Your task to perform on an android device: Open maps Image 0: 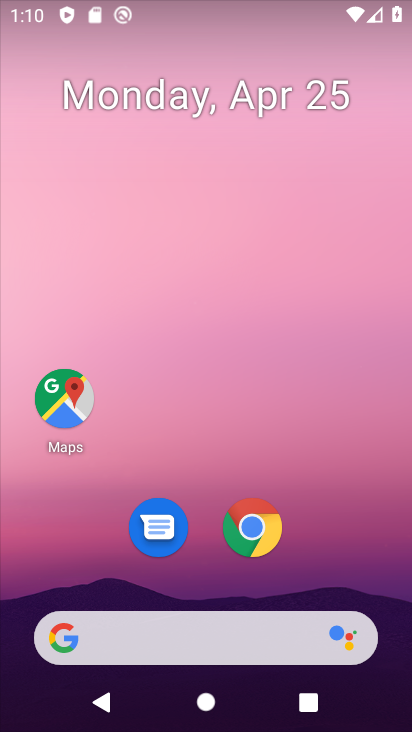
Step 0: drag from (386, 641) to (233, 90)
Your task to perform on an android device: Open maps Image 1: 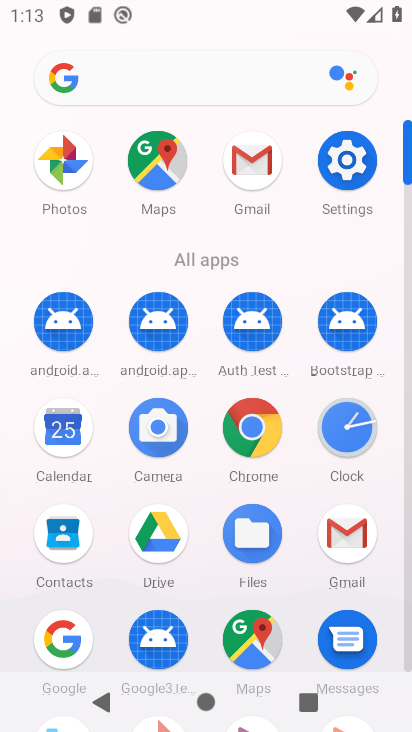
Step 1: click (255, 651)
Your task to perform on an android device: Open maps Image 2: 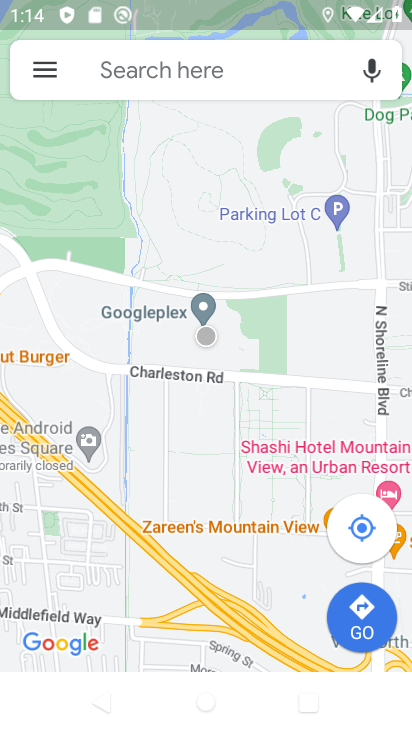
Step 2: task complete